Your task to perform on an android device: move an email to a new category in the gmail app Image 0: 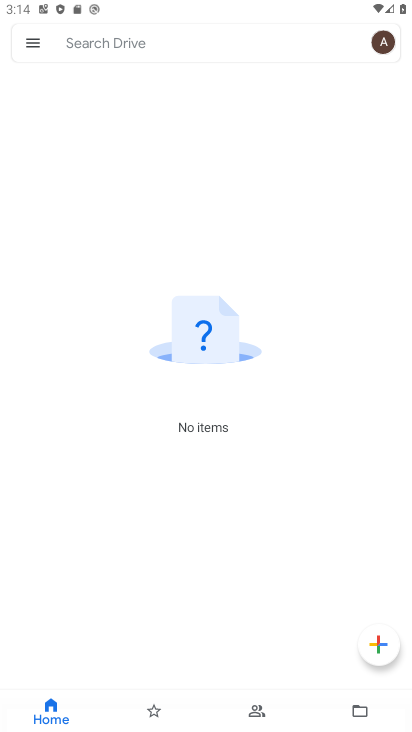
Step 0: press home button
Your task to perform on an android device: move an email to a new category in the gmail app Image 1: 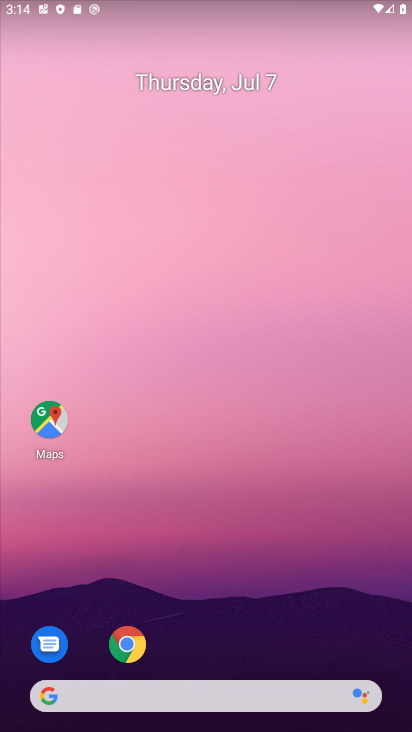
Step 1: drag from (216, 668) to (166, 32)
Your task to perform on an android device: move an email to a new category in the gmail app Image 2: 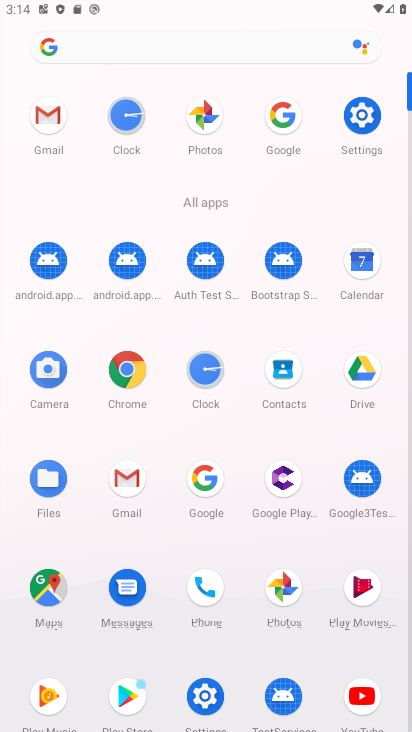
Step 2: click (135, 483)
Your task to perform on an android device: move an email to a new category in the gmail app Image 3: 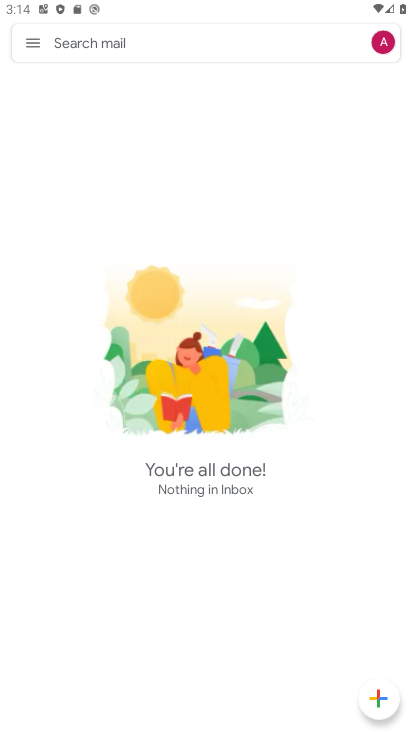
Step 3: task complete